Your task to perform on an android device: Open wifi settings Image 0: 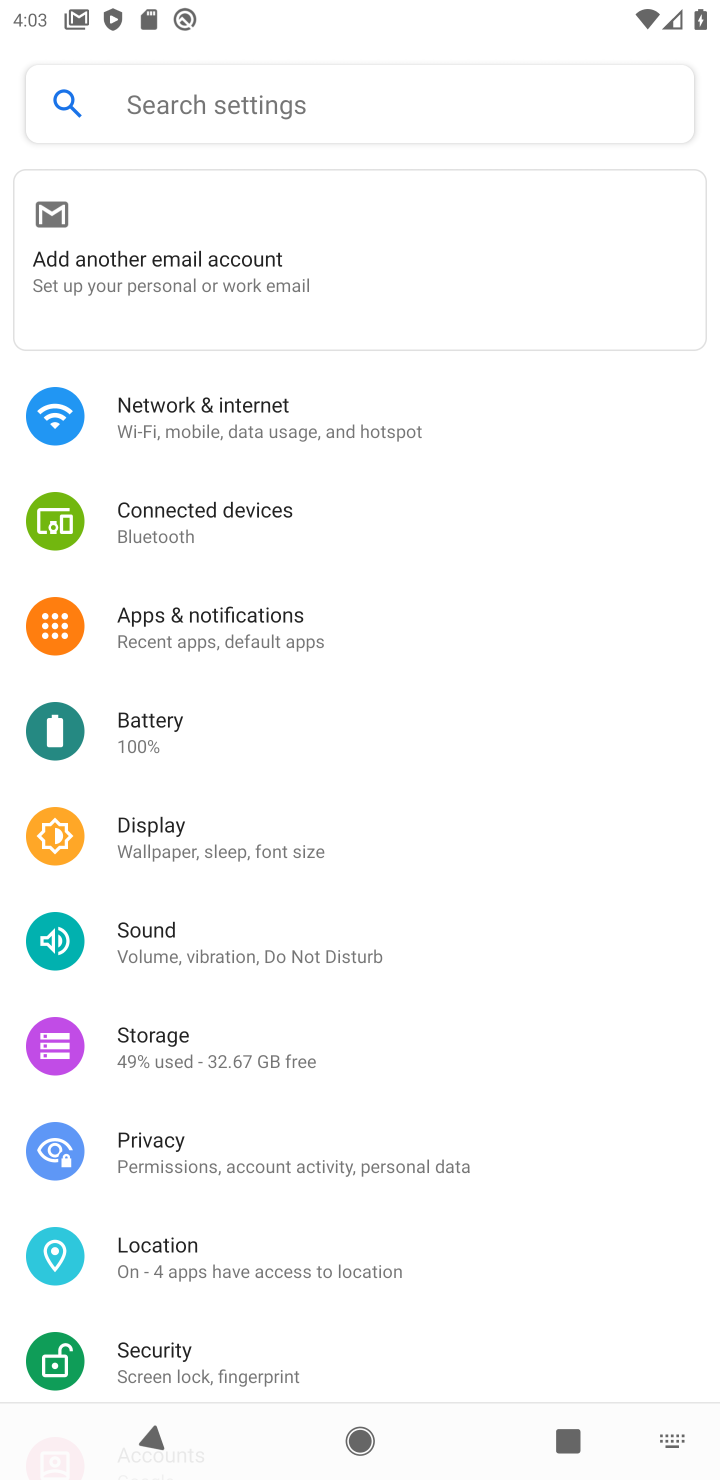
Step 0: click (322, 432)
Your task to perform on an android device: Open wifi settings Image 1: 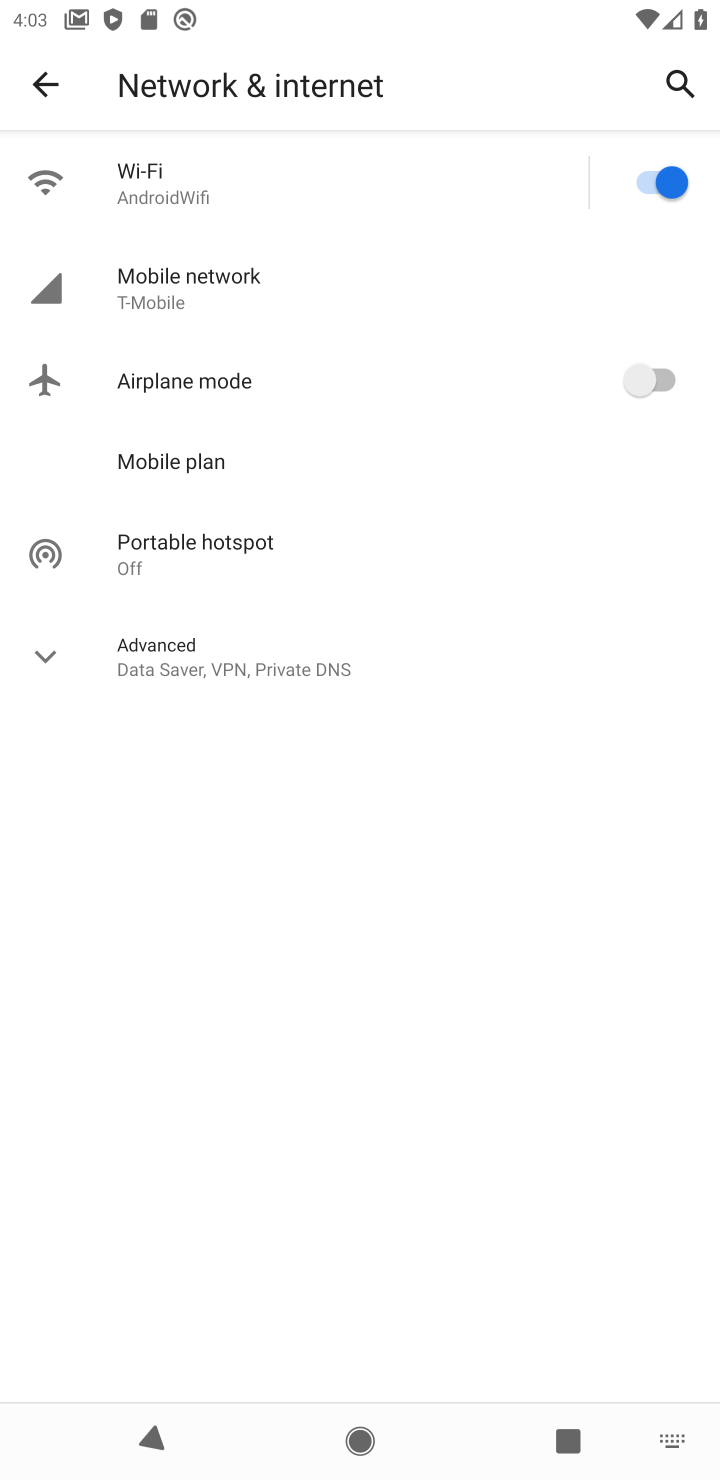
Step 1: click (271, 176)
Your task to perform on an android device: Open wifi settings Image 2: 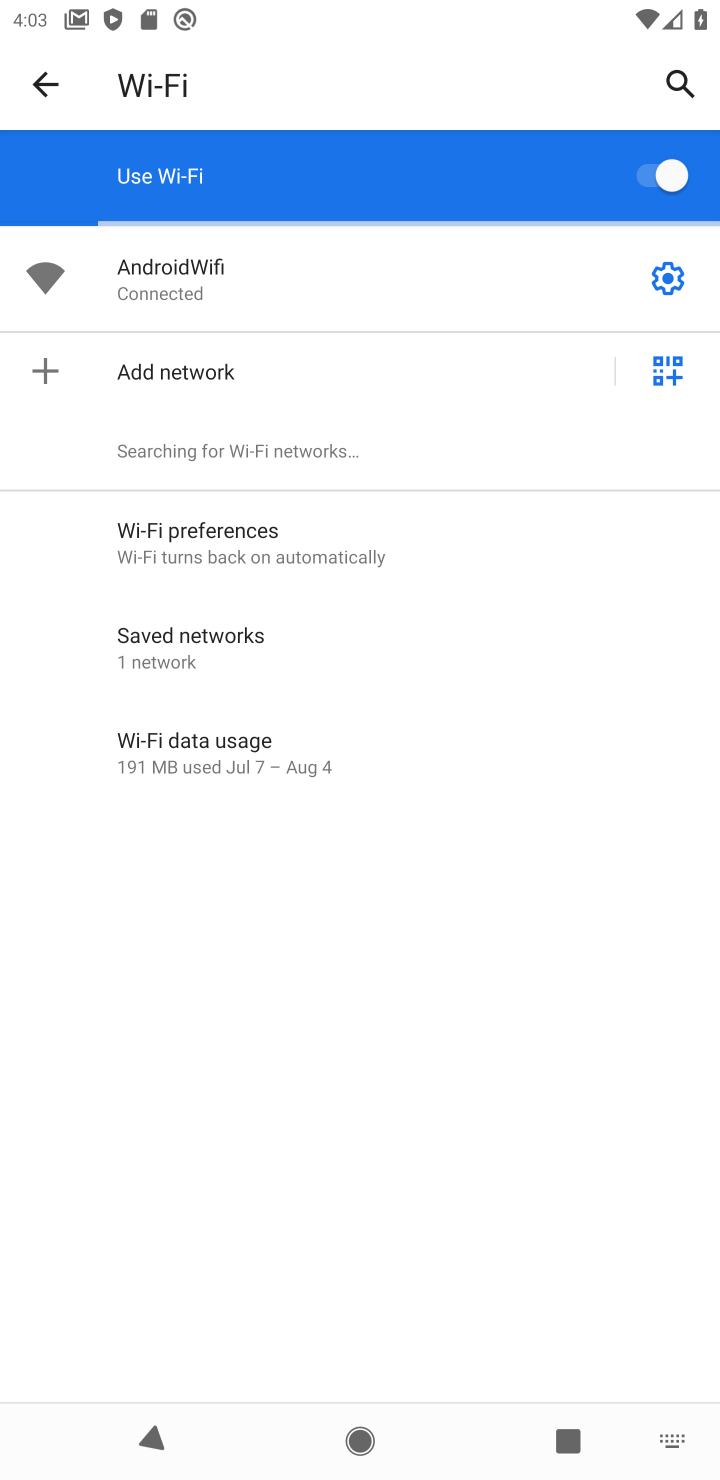
Step 2: task complete